Your task to perform on an android device: turn off improve location accuracy Image 0: 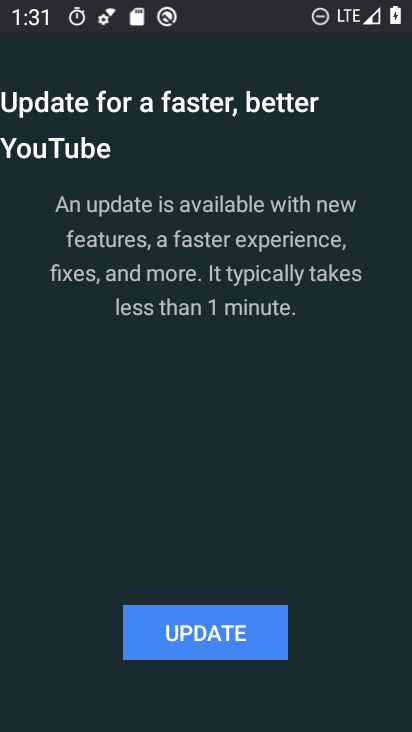
Step 0: press home button
Your task to perform on an android device: turn off improve location accuracy Image 1: 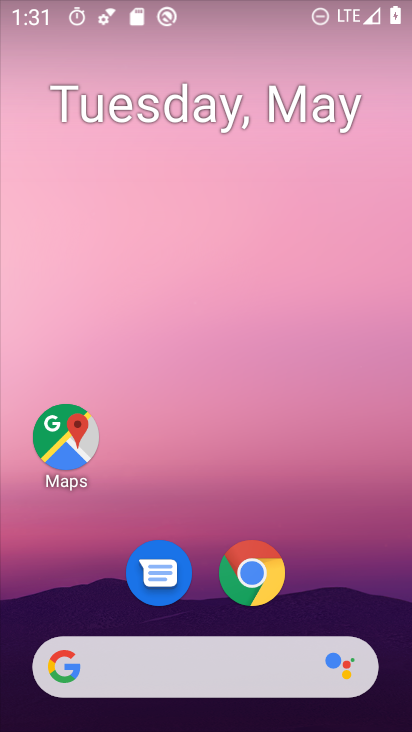
Step 1: drag from (312, 548) to (327, 108)
Your task to perform on an android device: turn off improve location accuracy Image 2: 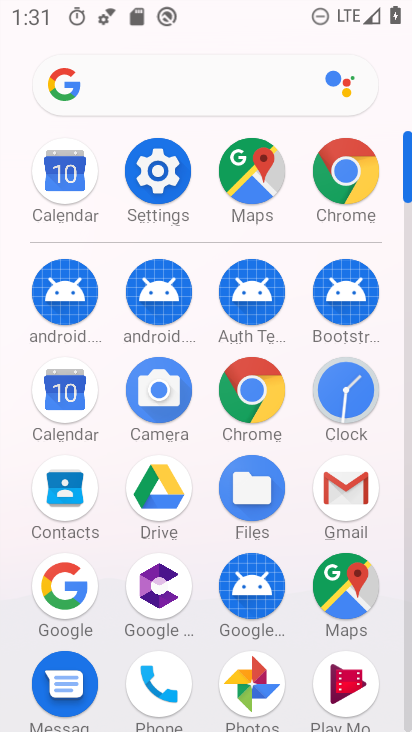
Step 2: click (172, 179)
Your task to perform on an android device: turn off improve location accuracy Image 3: 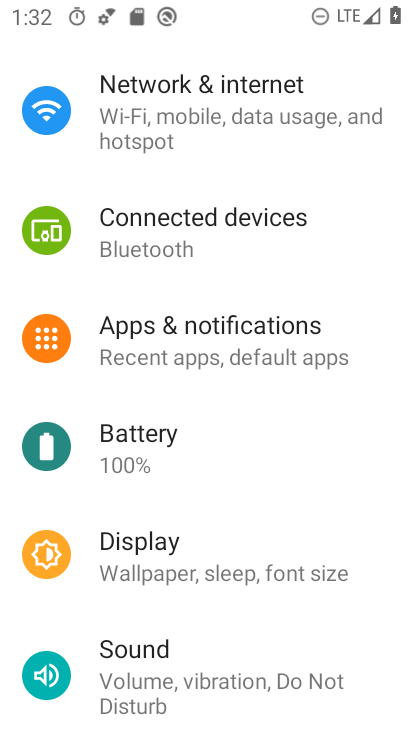
Step 3: drag from (222, 616) to (188, 282)
Your task to perform on an android device: turn off improve location accuracy Image 4: 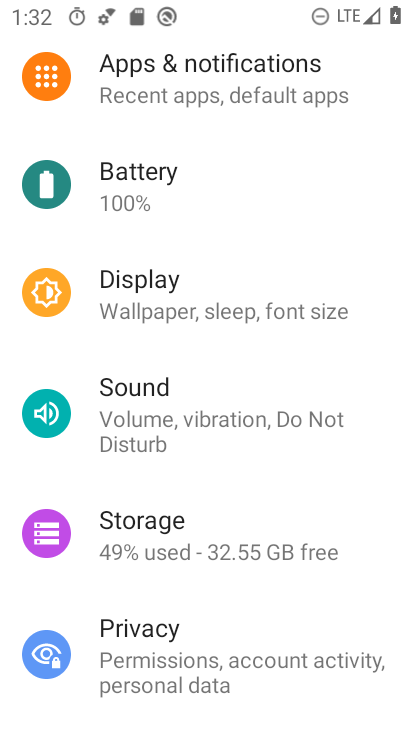
Step 4: drag from (206, 515) to (181, 234)
Your task to perform on an android device: turn off improve location accuracy Image 5: 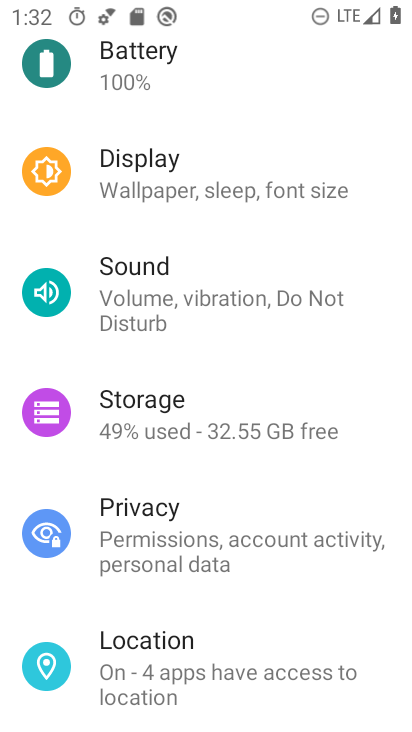
Step 5: click (187, 643)
Your task to perform on an android device: turn off improve location accuracy Image 6: 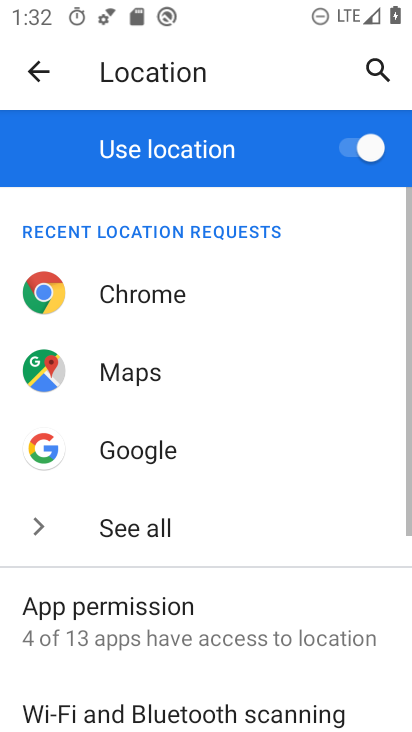
Step 6: drag from (297, 627) to (309, 241)
Your task to perform on an android device: turn off improve location accuracy Image 7: 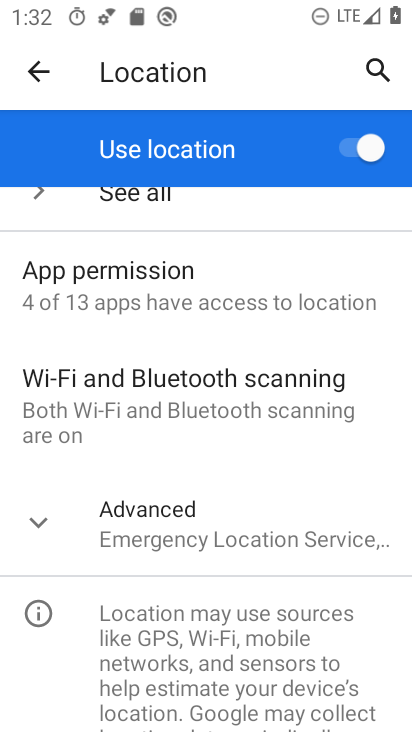
Step 7: click (275, 544)
Your task to perform on an android device: turn off improve location accuracy Image 8: 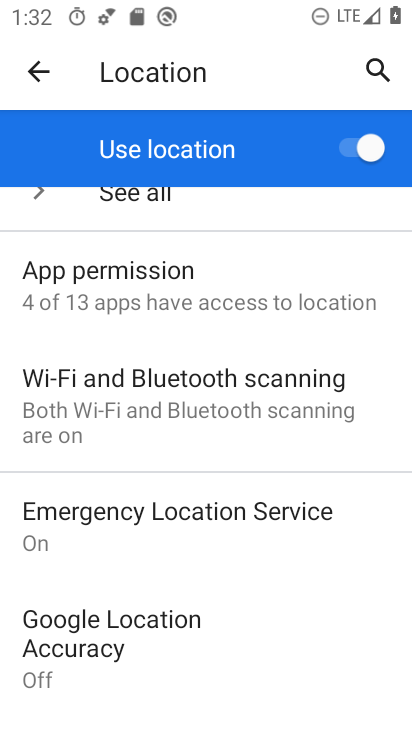
Step 8: drag from (273, 628) to (246, 316)
Your task to perform on an android device: turn off improve location accuracy Image 9: 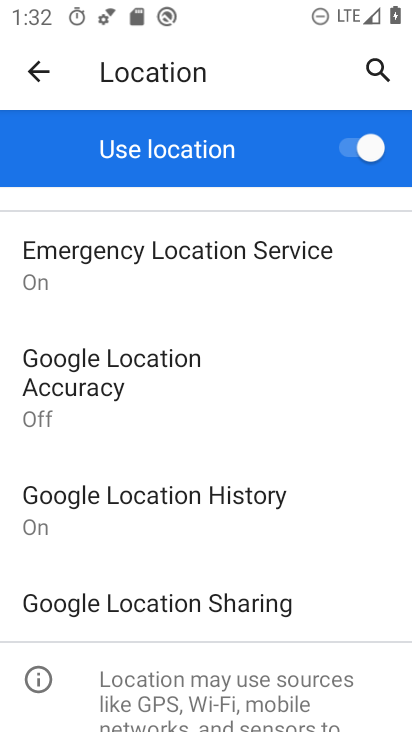
Step 9: click (90, 389)
Your task to perform on an android device: turn off improve location accuracy Image 10: 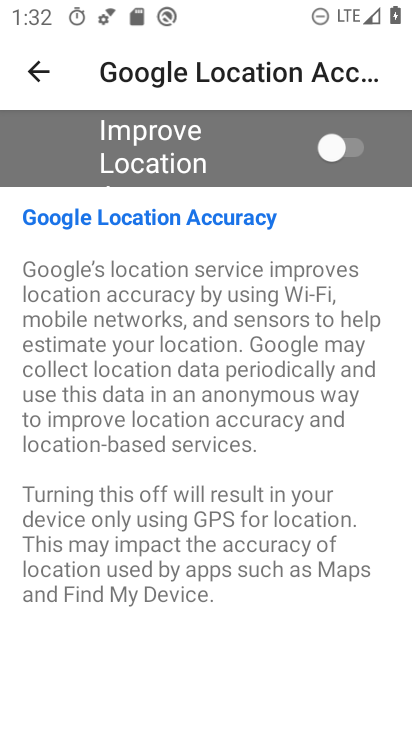
Step 10: task complete